Your task to perform on an android device: Open privacy settings Image 0: 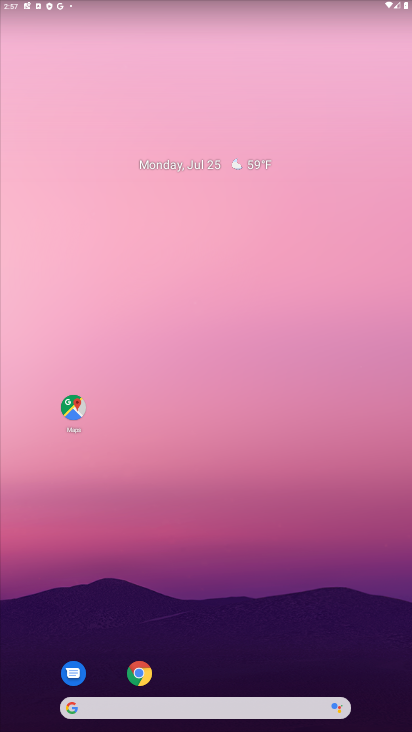
Step 0: drag from (182, 666) to (182, 22)
Your task to perform on an android device: Open privacy settings Image 1: 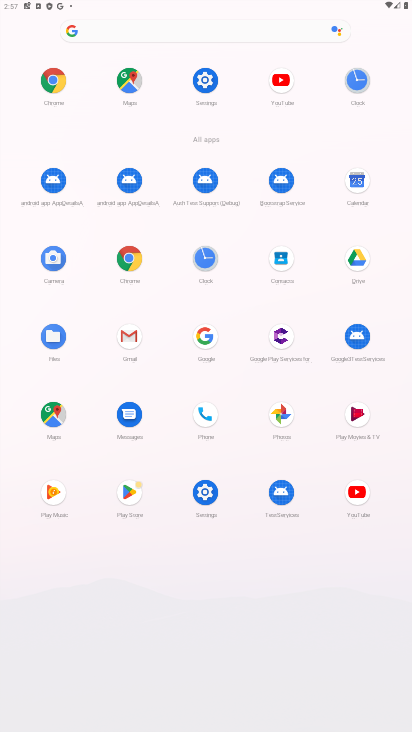
Step 1: click (207, 65)
Your task to perform on an android device: Open privacy settings Image 2: 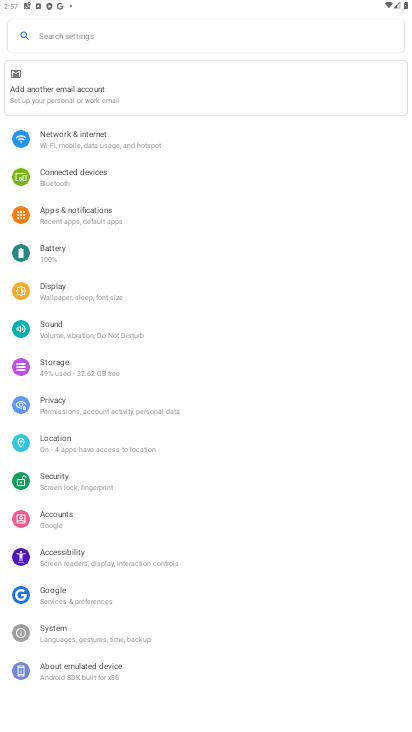
Step 2: click (101, 407)
Your task to perform on an android device: Open privacy settings Image 3: 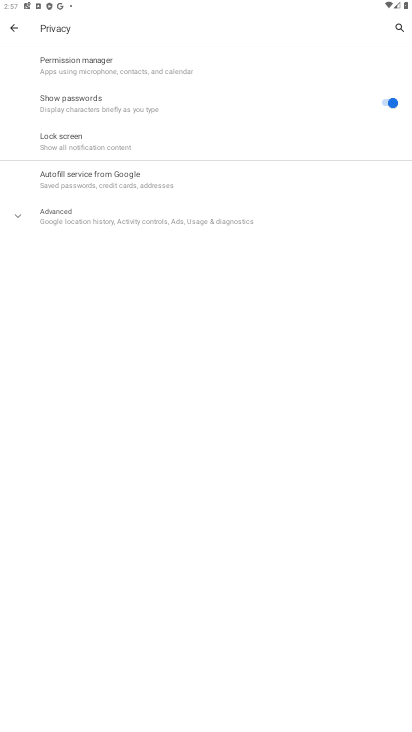
Step 3: task complete